Your task to perform on an android device: toggle data saver in the chrome app Image 0: 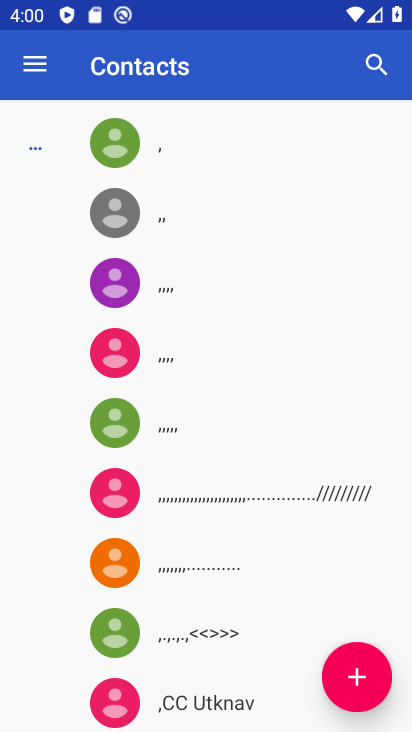
Step 0: press home button
Your task to perform on an android device: toggle data saver in the chrome app Image 1: 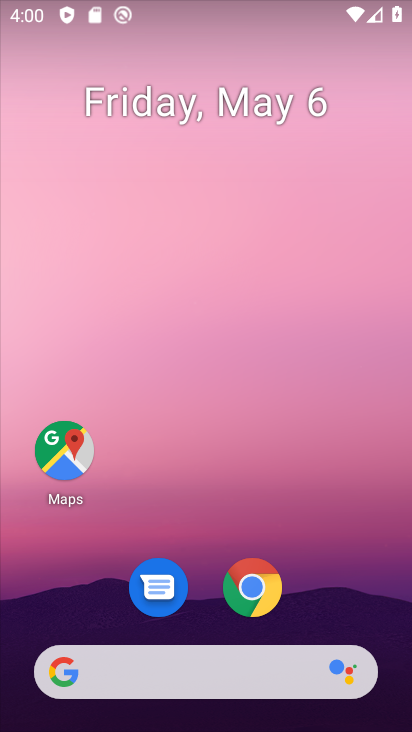
Step 1: drag from (261, 695) to (284, 201)
Your task to perform on an android device: toggle data saver in the chrome app Image 2: 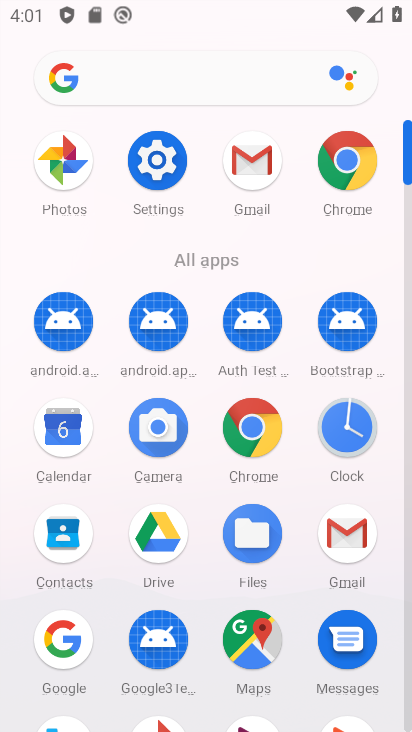
Step 2: click (335, 171)
Your task to perform on an android device: toggle data saver in the chrome app Image 3: 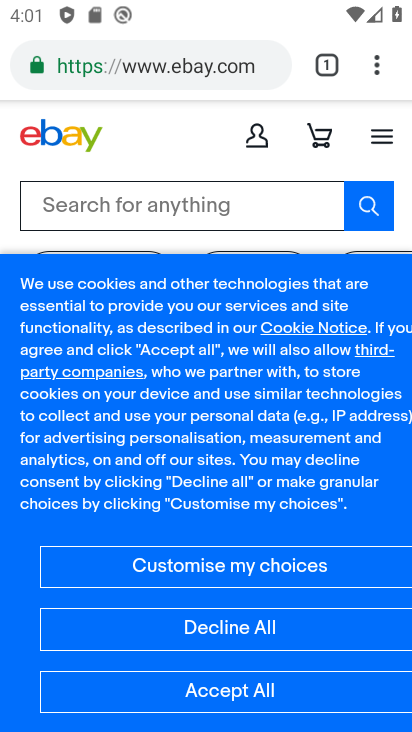
Step 3: click (383, 93)
Your task to perform on an android device: toggle data saver in the chrome app Image 4: 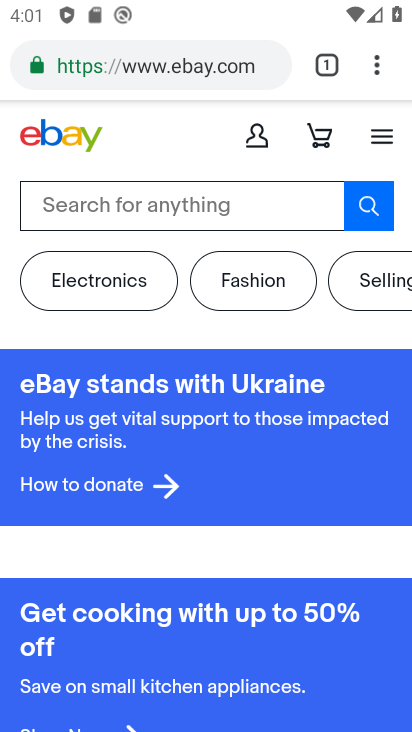
Step 4: click (373, 81)
Your task to perform on an android device: toggle data saver in the chrome app Image 5: 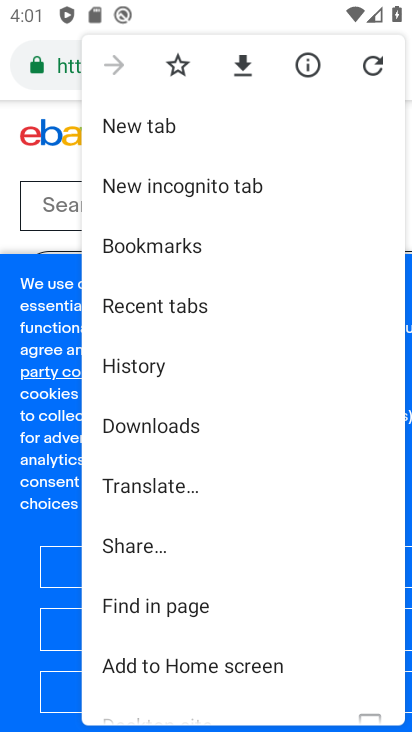
Step 5: drag from (181, 626) to (204, 324)
Your task to perform on an android device: toggle data saver in the chrome app Image 6: 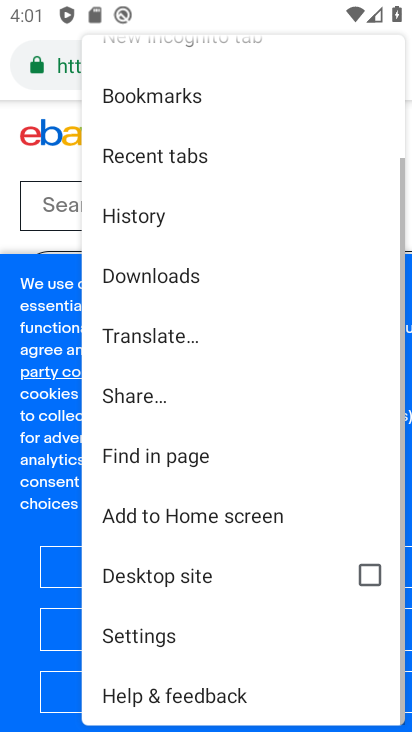
Step 6: click (132, 632)
Your task to perform on an android device: toggle data saver in the chrome app Image 7: 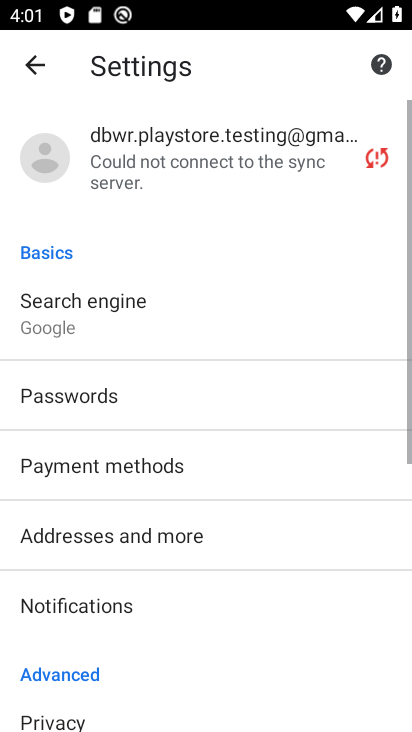
Step 7: drag from (176, 642) to (287, 199)
Your task to perform on an android device: toggle data saver in the chrome app Image 8: 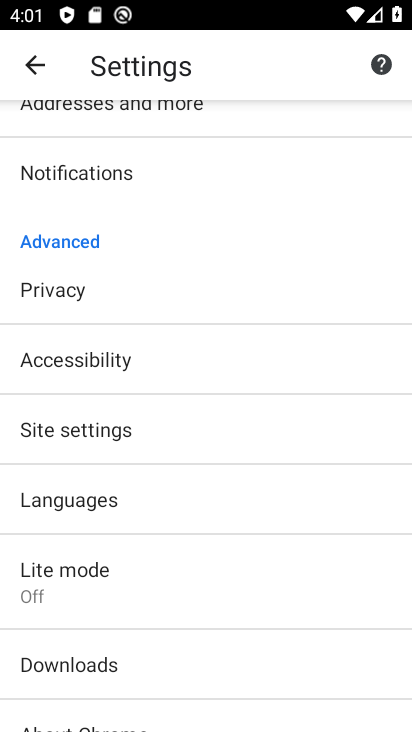
Step 8: drag from (165, 593) to (223, 367)
Your task to perform on an android device: toggle data saver in the chrome app Image 9: 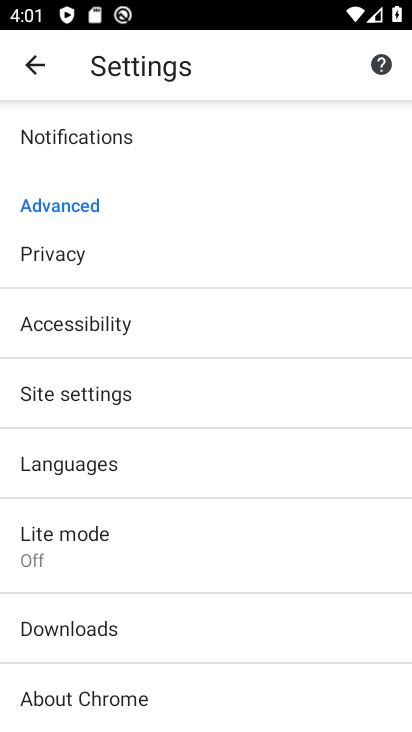
Step 9: click (91, 531)
Your task to perform on an android device: toggle data saver in the chrome app Image 10: 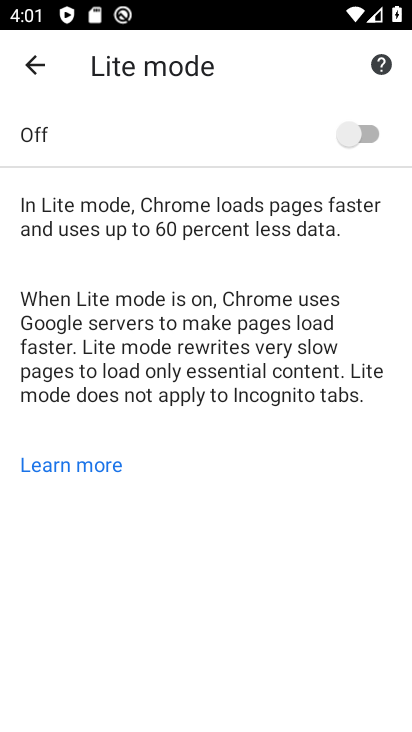
Step 10: task complete